Your task to perform on an android device: open device folders in google photos Image 0: 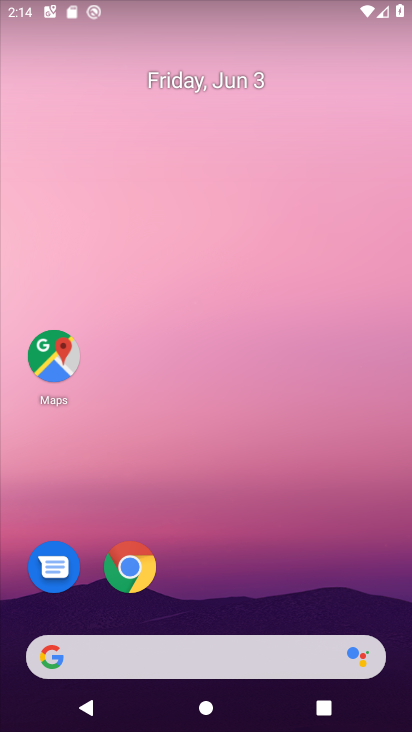
Step 0: drag from (245, 615) to (276, 303)
Your task to perform on an android device: open device folders in google photos Image 1: 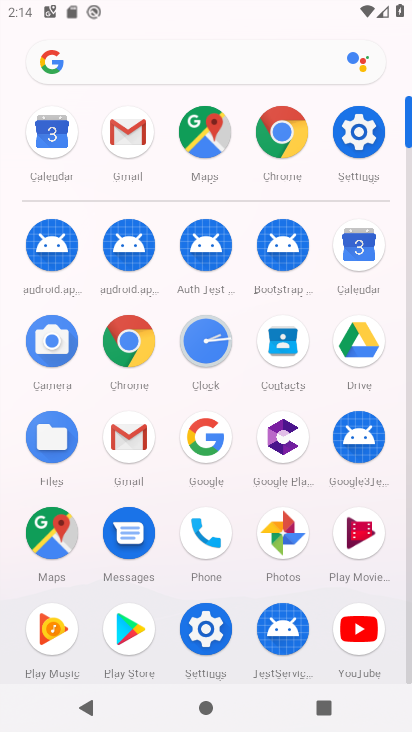
Step 1: click (282, 528)
Your task to perform on an android device: open device folders in google photos Image 2: 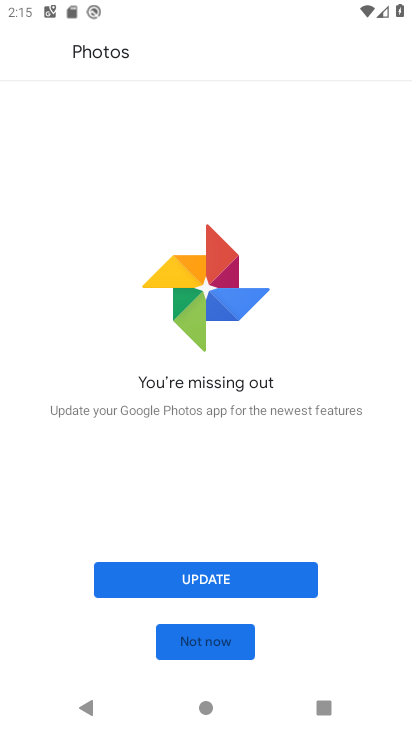
Step 2: click (227, 632)
Your task to perform on an android device: open device folders in google photos Image 3: 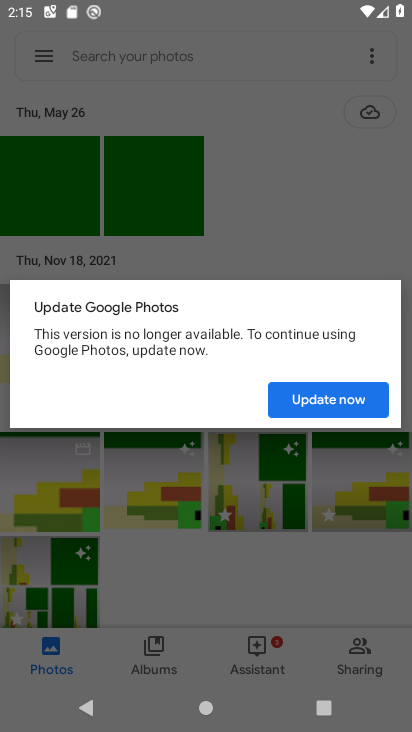
Step 3: press back button
Your task to perform on an android device: open device folders in google photos Image 4: 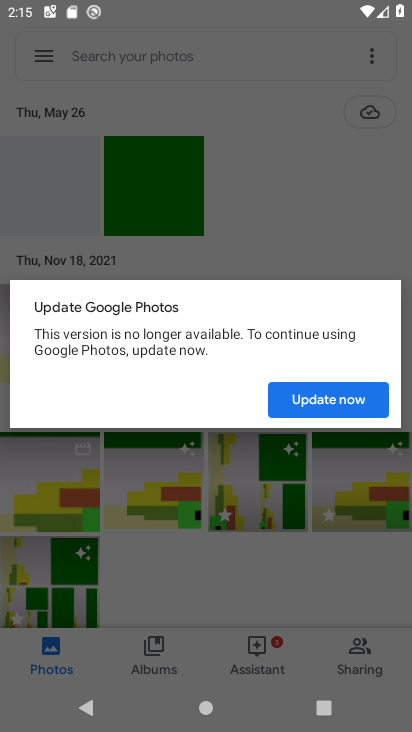
Step 4: click (329, 396)
Your task to perform on an android device: open device folders in google photos Image 5: 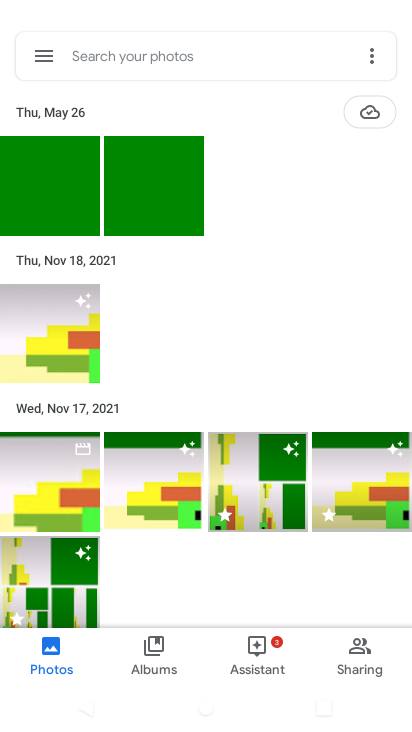
Step 5: press back button
Your task to perform on an android device: open device folders in google photos Image 6: 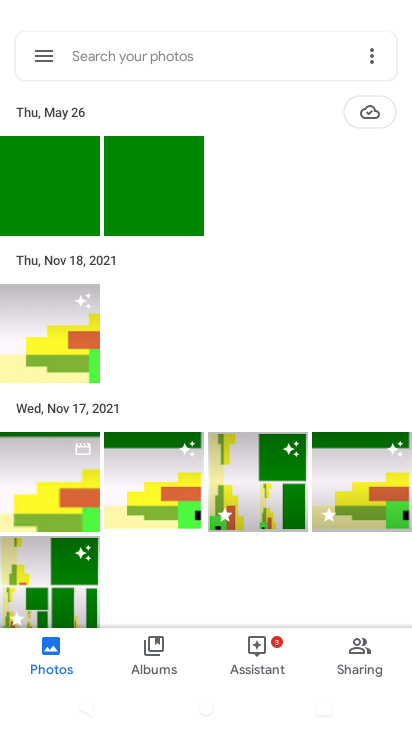
Step 6: click (69, 516)
Your task to perform on an android device: open device folders in google photos Image 7: 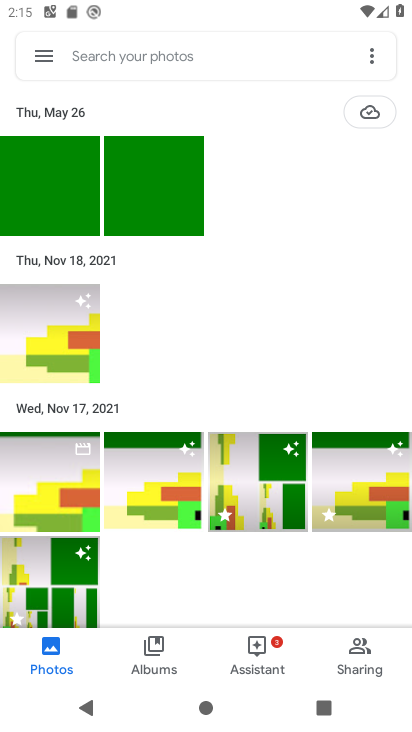
Step 7: task complete